Your task to perform on an android device: turn off javascript in the chrome app Image 0: 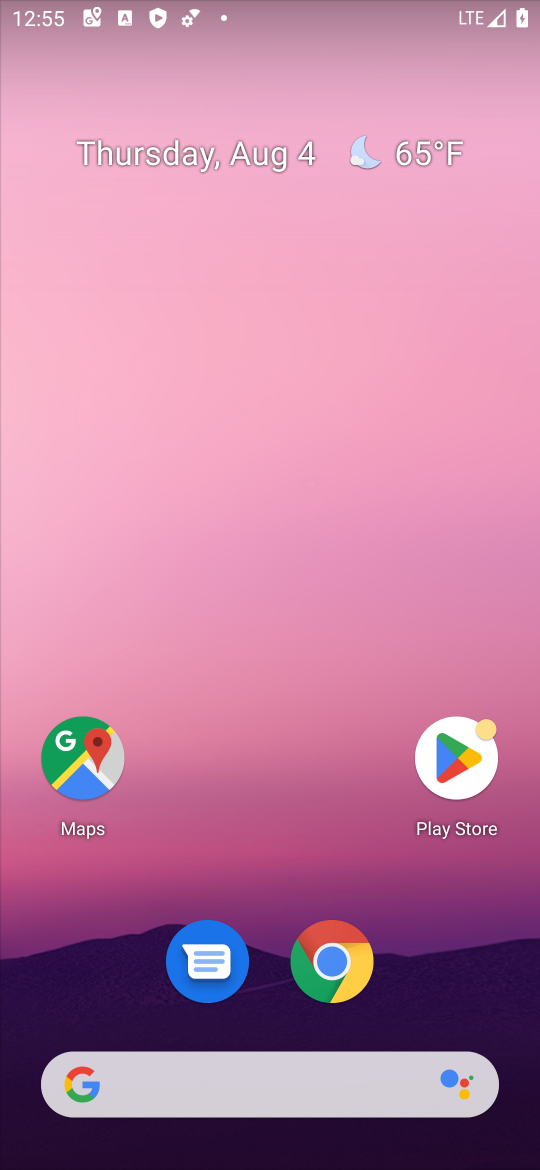
Step 0: click (330, 953)
Your task to perform on an android device: turn off javascript in the chrome app Image 1: 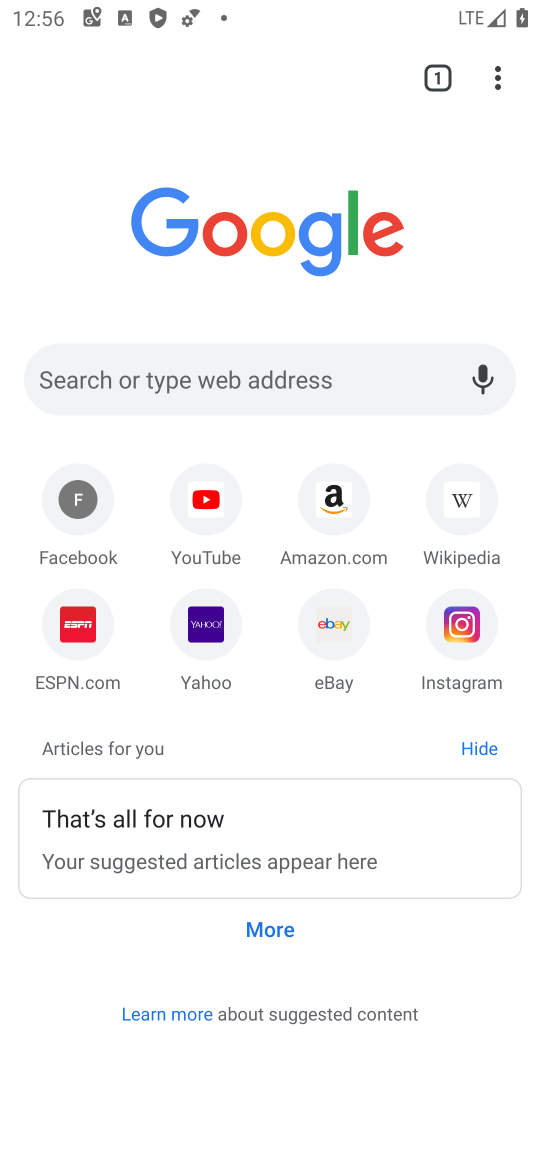
Step 1: click (494, 80)
Your task to perform on an android device: turn off javascript in the chrome app Image 2: 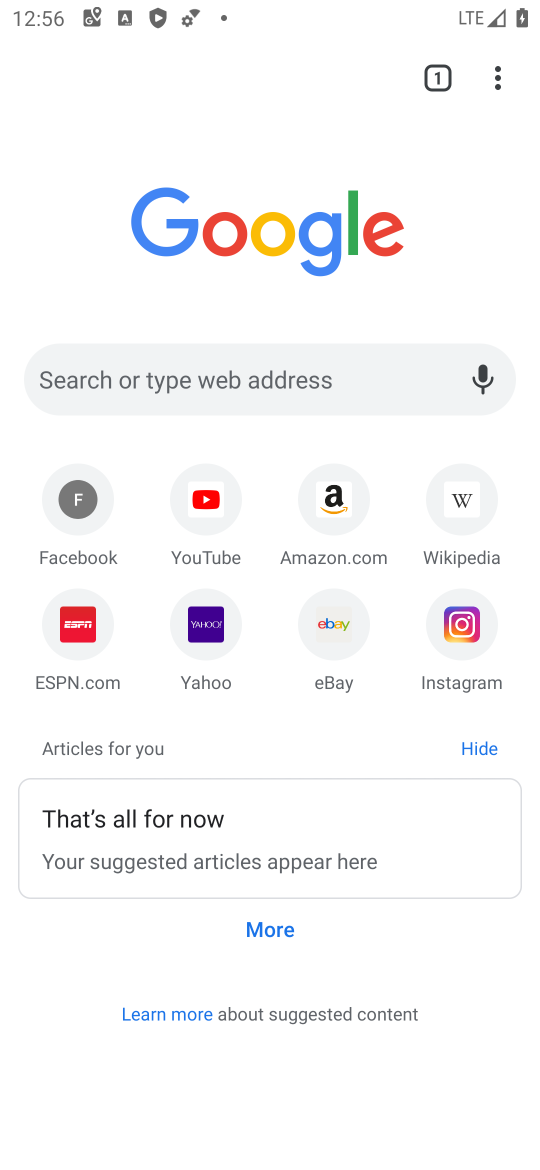
Step 2: click (494, 80)
Your task to perform on an android device: turn off javascript in the chrome app Image 3: 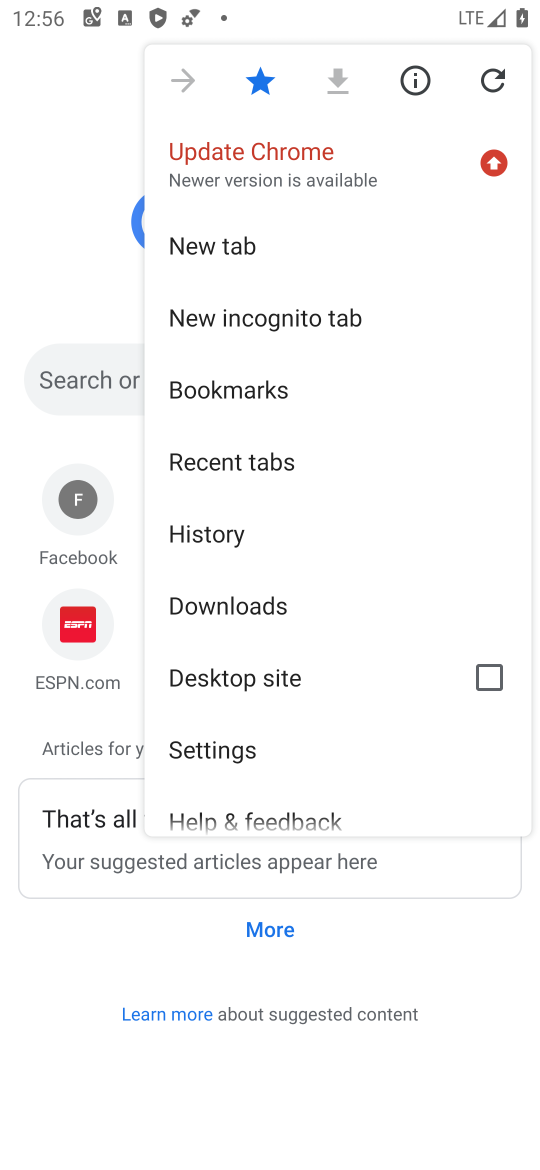
Step 3: click (236, 748)
Your task to perform on an android device: turn off javascript in the chrome app Image 4: 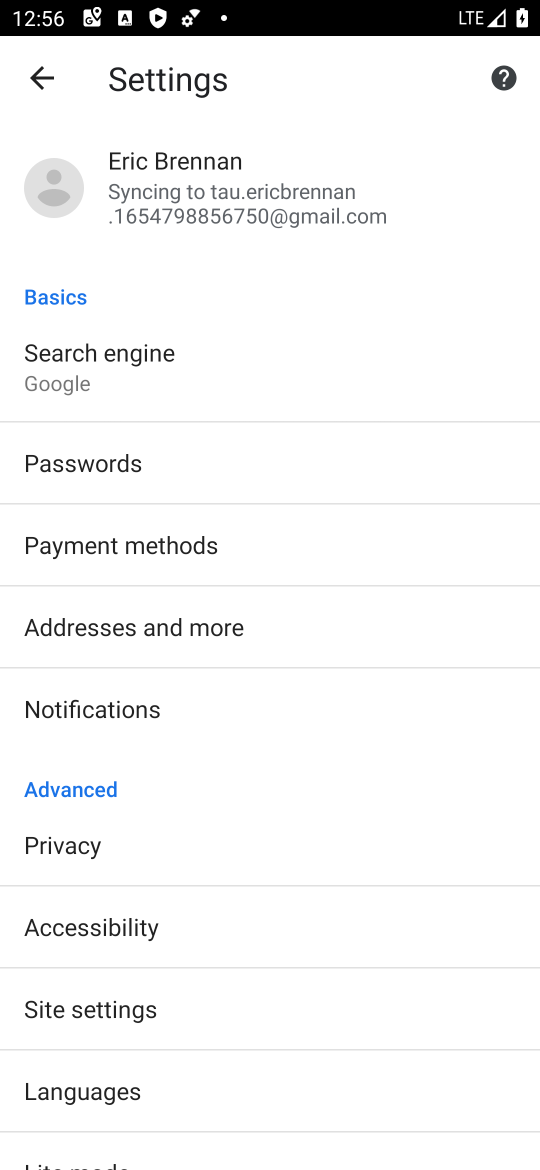
Step 4: click (132, 1002)
Your task to perform on an android device: turn off javascript in the chrome app Image 5: 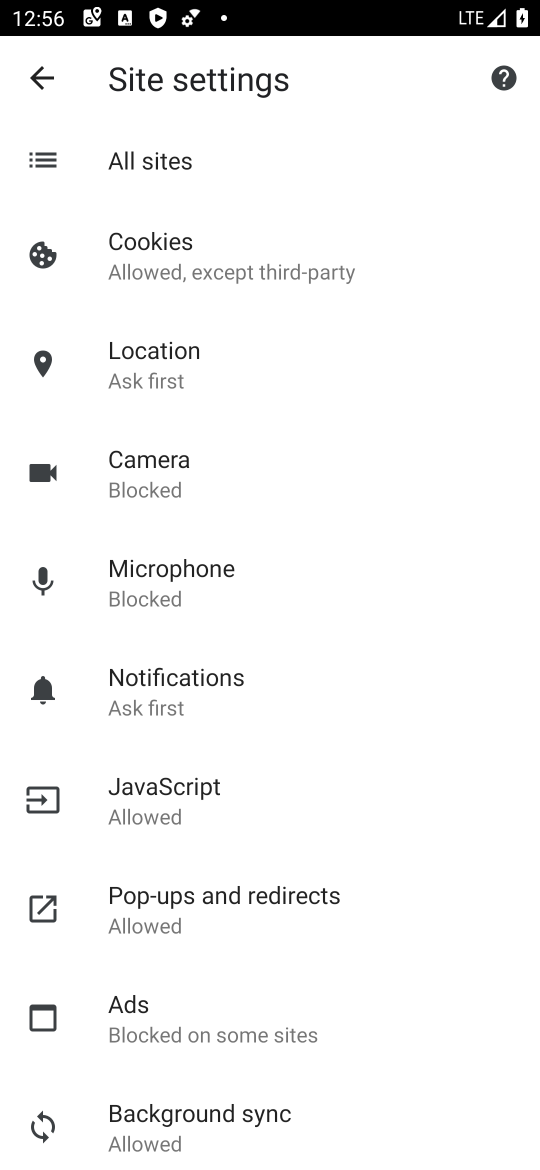
Step 5: click (161, 787)
Your task to perform on an android device: turn off javascript in the chrome app Image 6: 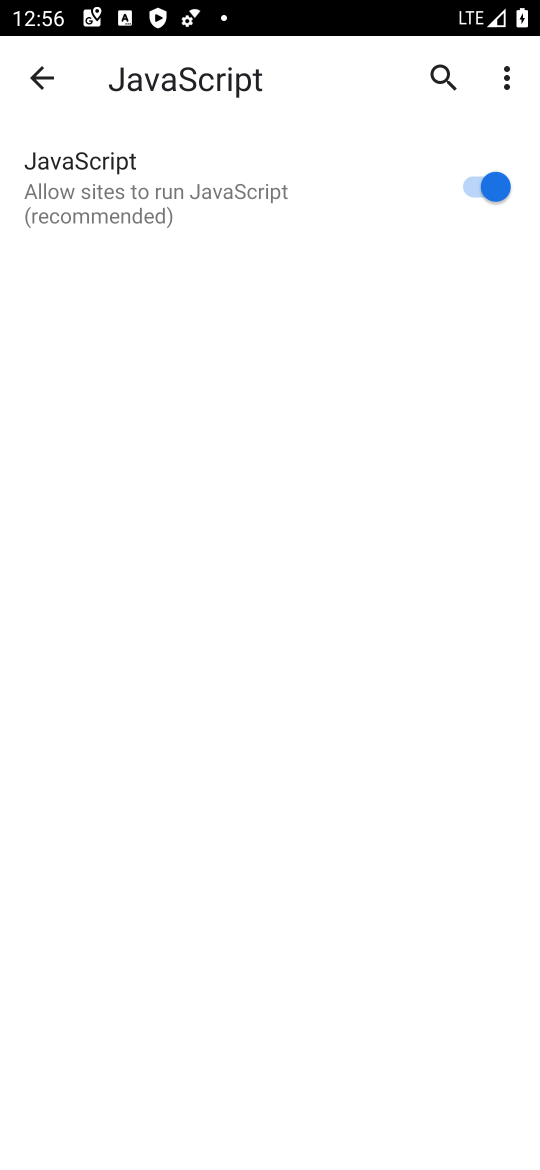
Step 6: click (487, 172)
Your task to perform on an android device: turn off javascript in the chrome app Image 7: 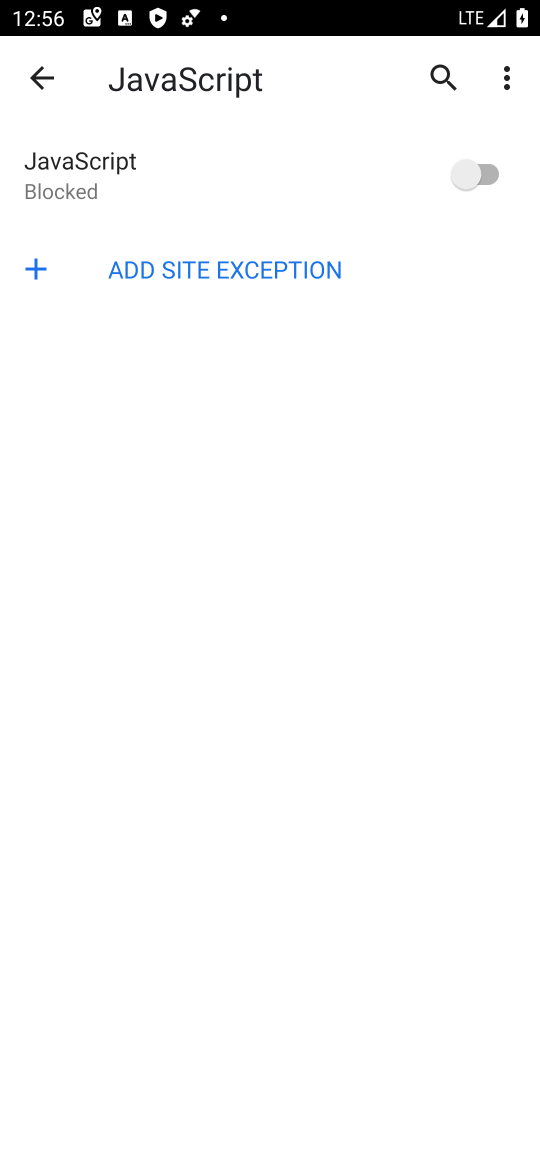
Step 7: task complete